Your task to perform on an android device: Search for pizza restaurants on Maps Image 0: 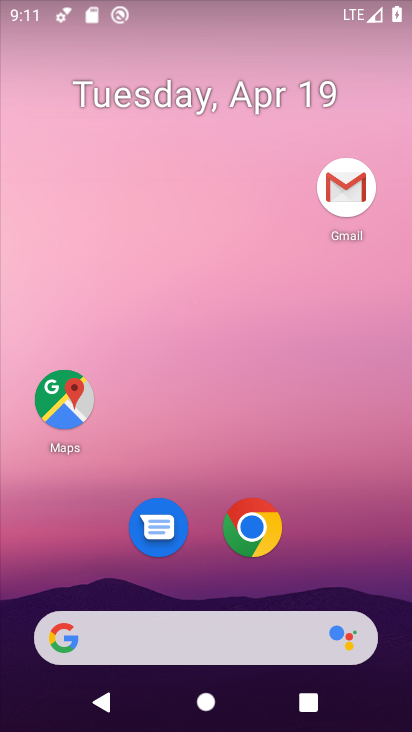
Step 0: drag from (382, 480) to (374, 132)
Your task to perform on an android device: Search for pizza restaurants on Maps Image 1: 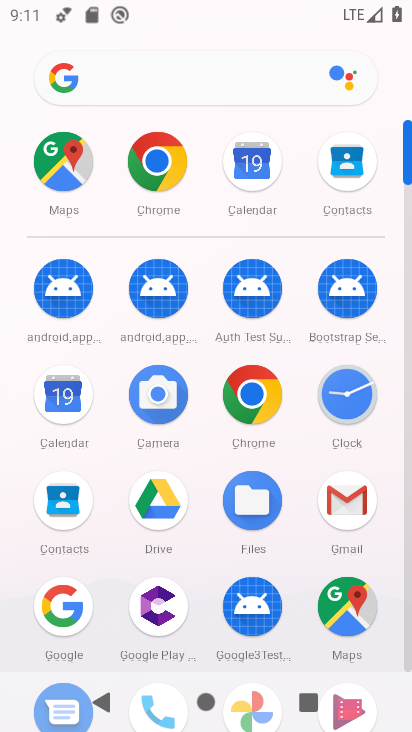
Step 1: click (68, 174)
Your task to perform on an android device: Search for pizza restaurants on Maps Image 2: 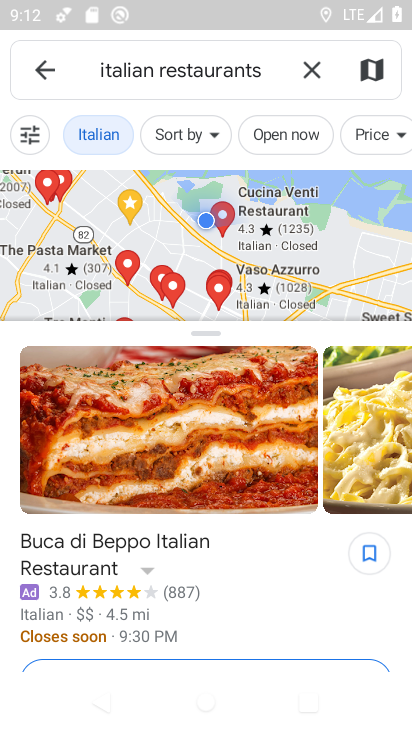
Step 2: click (314, 67)
Your task to perform on an android device: Search for pizza restaurants on Maps Image 3: 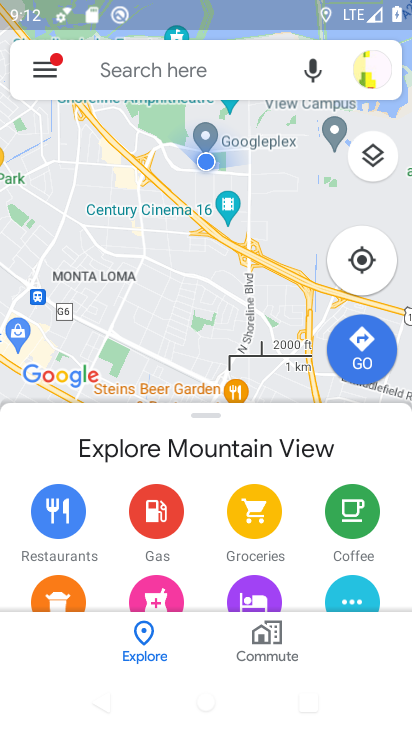
Step 3: click (202, 85)
Your task to perform on an android device: Search for pizza restaurants on Maps Image 4: 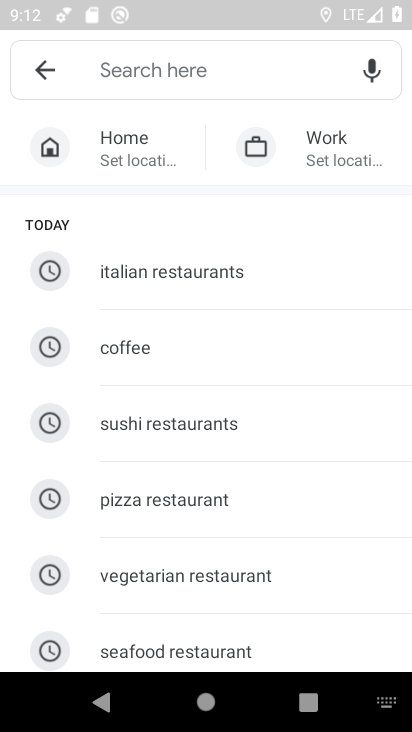
Step 4: type "pizza restaurants"
Your task to perform on an android device: Search for pizza restaurants on Maps Image 5: 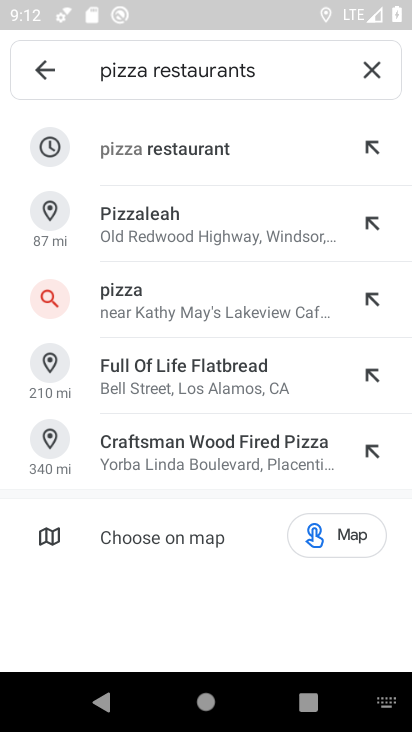
Step 5: click (162, 155)
Your task to perform on an android device: Search for pizza restaurants on Maps Image 6: 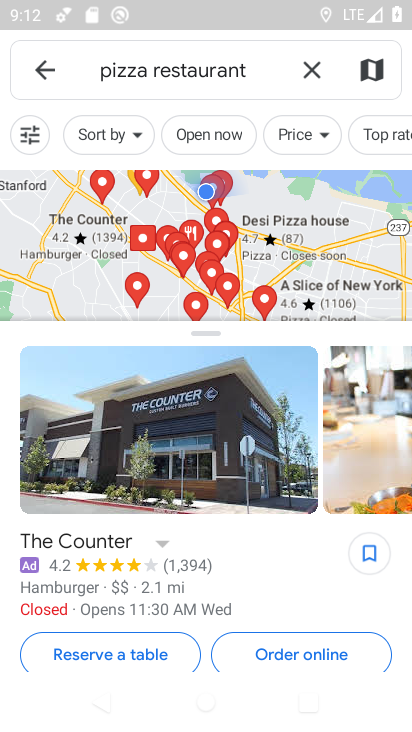
Step 6: task complete